Your task to perform on an android device: turn on improve location accuracy Image 0: 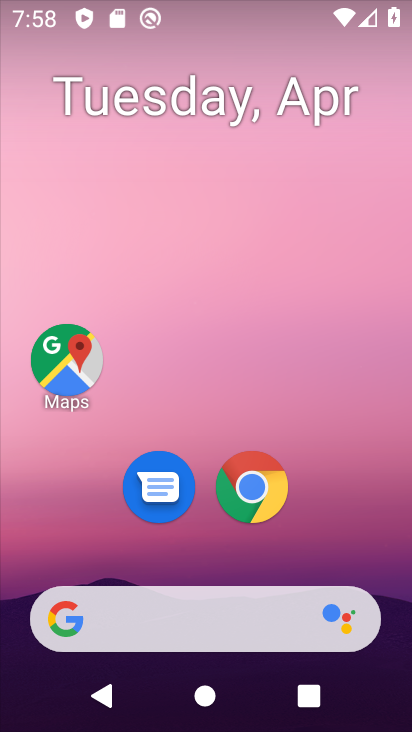
Step 0: drag from (268, 585) to (296, 214)
Your task to perform on an android device: turn on improve location accuracy Image 1: 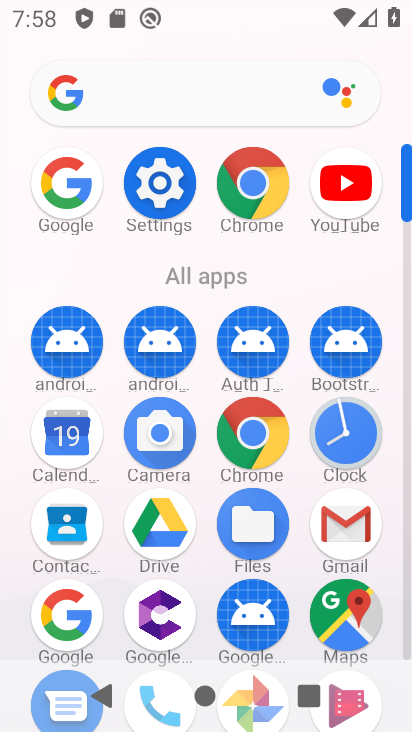
Step 1: click (148, 176)
Your task to perform on an android device: turn on improve location accuracy Image 2: 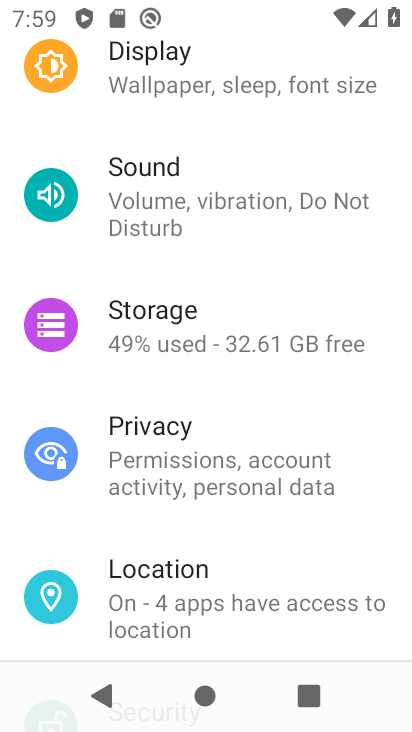
Step 2: click (138, 591)
Your task to perform on an android device: turn on improve location accuracy Image 3: 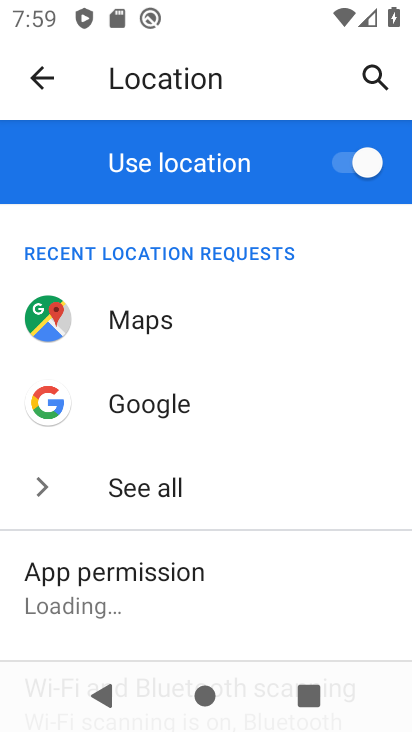
Step 3: drag from (153, 540) to (172, 363)
Your task to perform on an android device: turn on improve location accuracy Image 4: 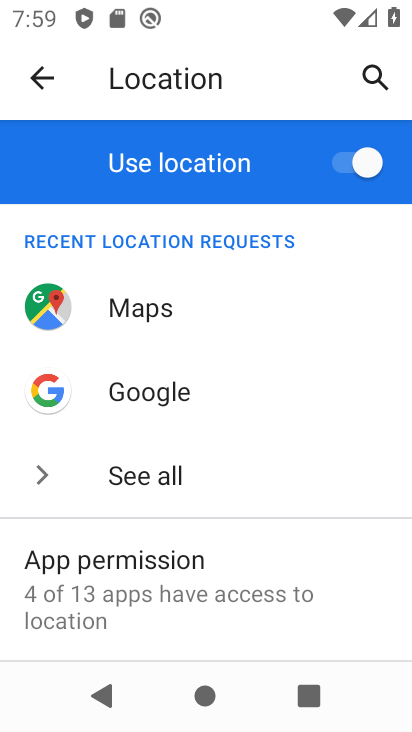
Step 4: click (142, 334)
Your task to perform on an android device: turn on improve location accuracy Image 5: 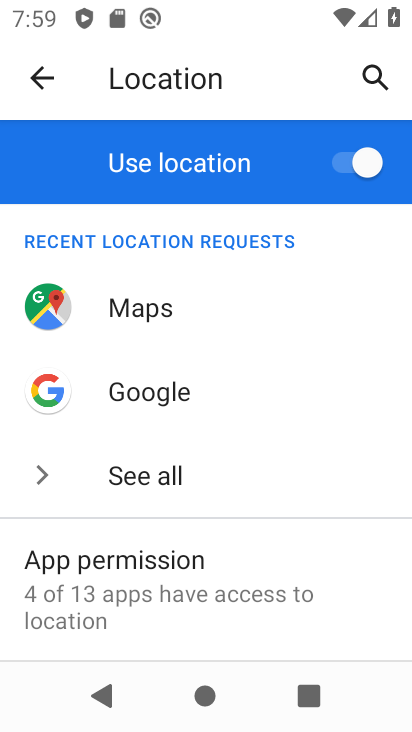
Step 5: drag from (162, 638) to (205, 324)
Your task to perform on an android device: turn on improve location accuracy Image 6: 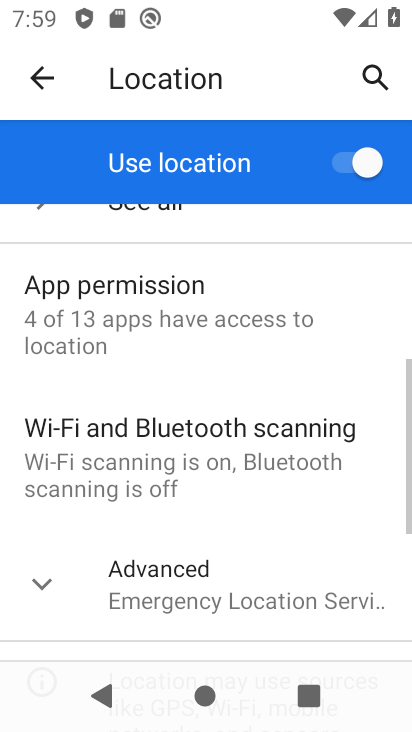
Step 6: drag from (207, 615) to (253, 310)
Your task to perform on an android device: turn on improve location accuracy Image 7: 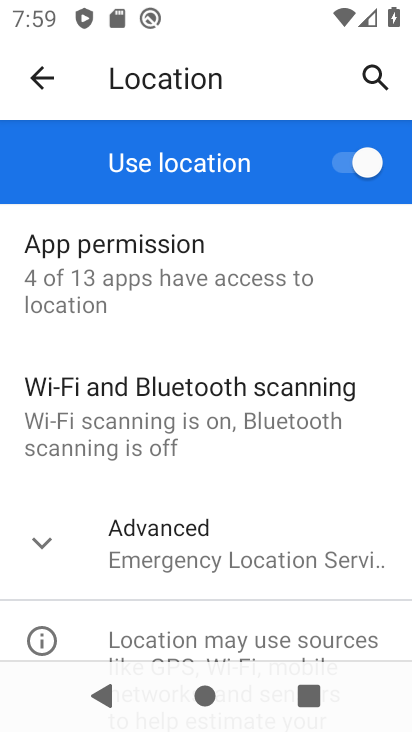
Step 7: click (173, 542)
Your task to perform on an android device: turn on improve location accuracy Image 8: 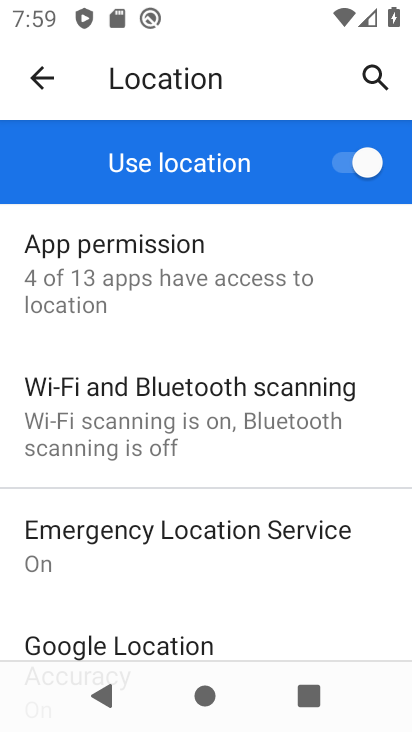
Step 8: drag from (143, 652) to (140, 440)
Your task to perform on an android device: turn on improve location accuracy Image 9: 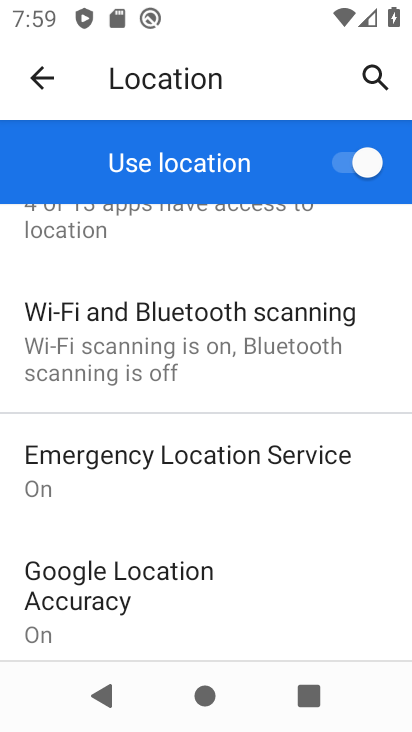
Step 9: click (73, 602)
Your task to perform on an android device: turn on improve location accuracy Image 10: 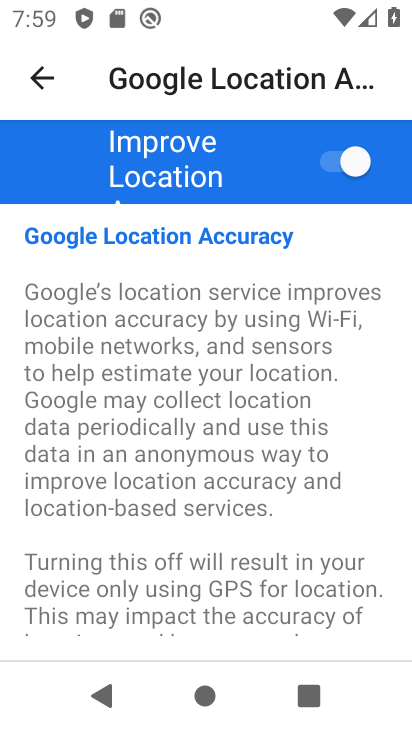
Step 10: task complete